Your task to perform on an android device: change alarm snooze length Image 0: 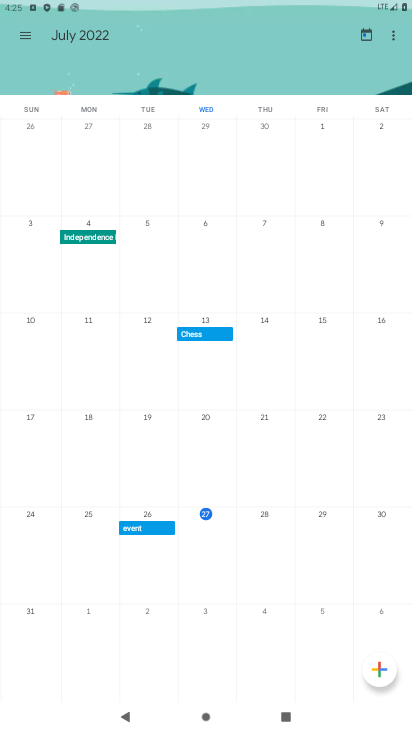
Step 0: press home button
Your task to perform on an android device: change alarm snooze length Image 1: 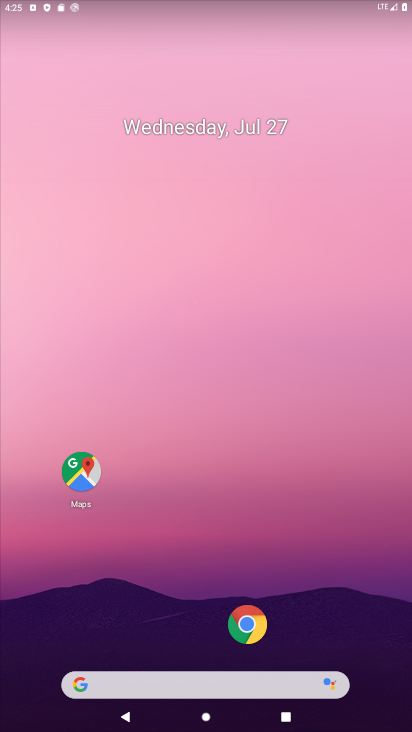
Step 1: drag from (149, 622) to (286, 110)
Your task to perform on an android device: change alarm snooze length Image 2: 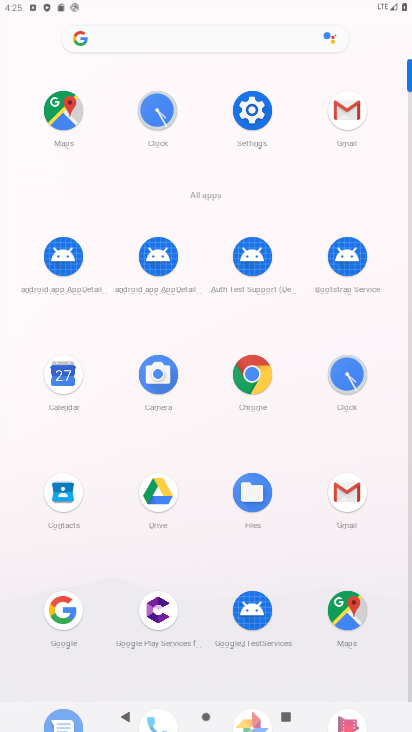
Step 2: click (140, 112)
Your task to perform on an android device: change alarm snooze length Image 3: 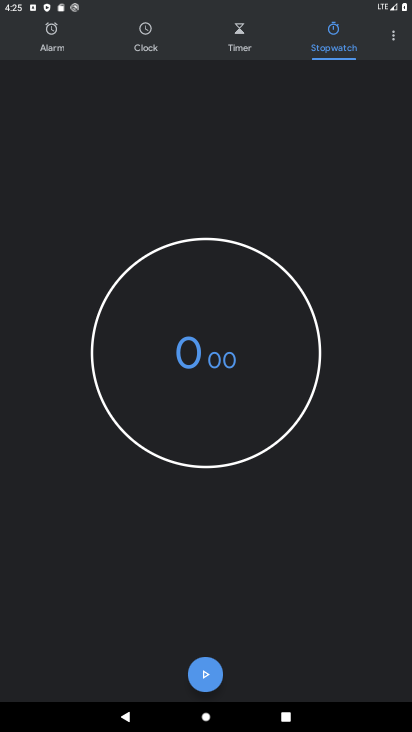
Step 3: click (401, 39)
Your task to perform on an android device: change alarm snooze length Image 4: 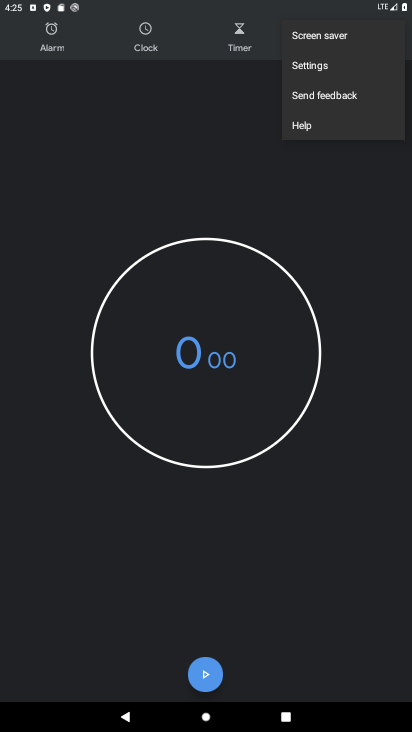
Step 4: click (360, 59)
Your task to perform on an android device: change alarm snooze length Image 5: 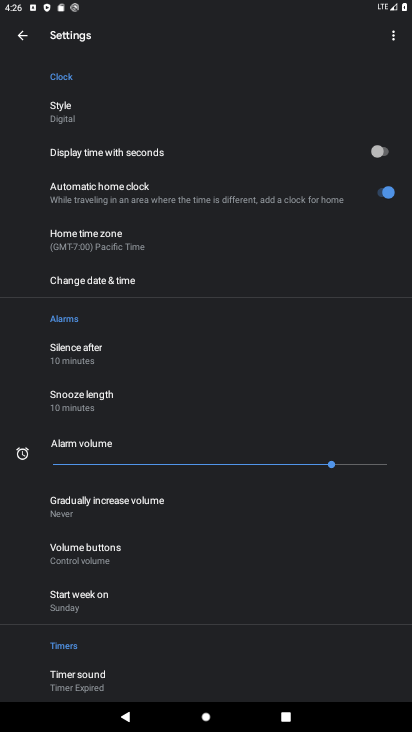
Step 5: click (76, 403)
Your task to perform on an android device: change alarm snooze length Image 6: 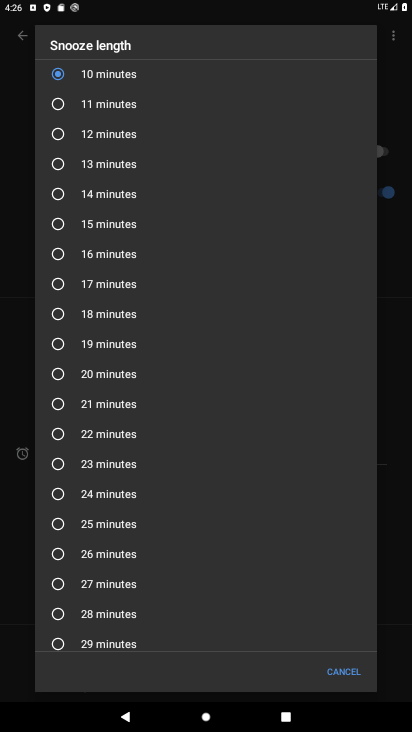
Step 6: click (99, 514)
Your task to perform on an android device: change alarm snooze length Image 7: 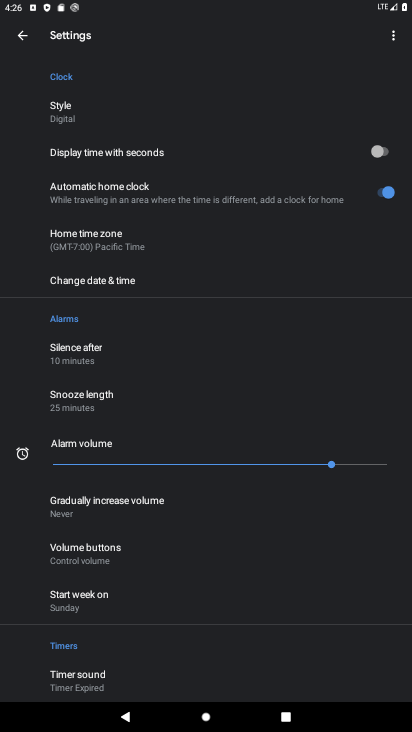
Step 7: task complete